Your task to perform on an android device: turn on wifi Image 0: 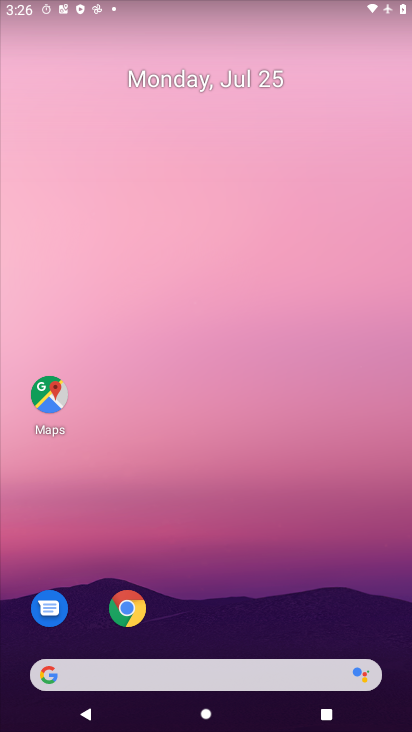
Step 0: drag from (243, 674) to (270, 208)
Your task to perform on an android device: turn on wifi Image 1: 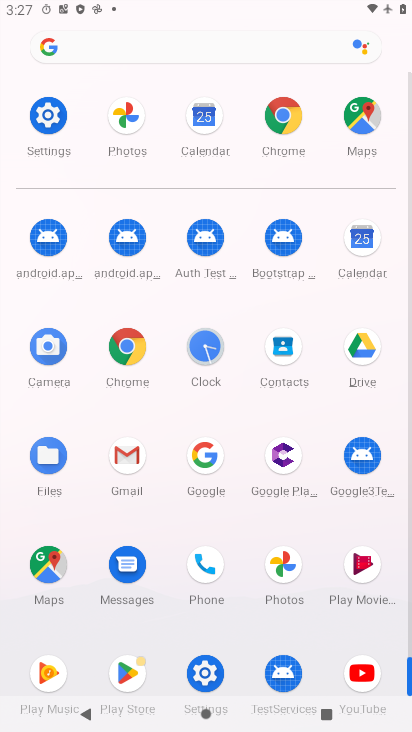
Step 1: click (52, 122)
Your task to perform on an android device: turn on wifi Image 2: 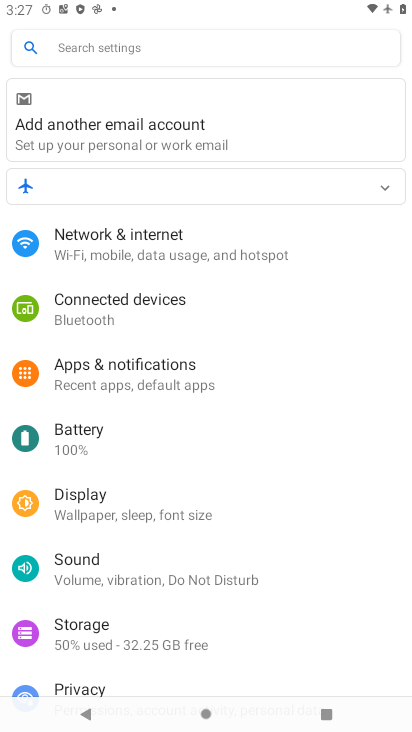
Step 2: click (148, 233)
Your task to perform on an android device: turn on wifi Image 3: 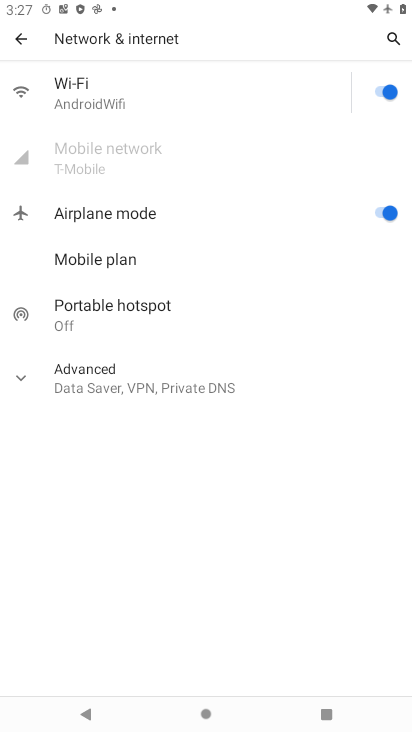
Step 3: task complete